Your task to perform on an android device: open app "Google Play Music" (install if not already installed) Image 0: 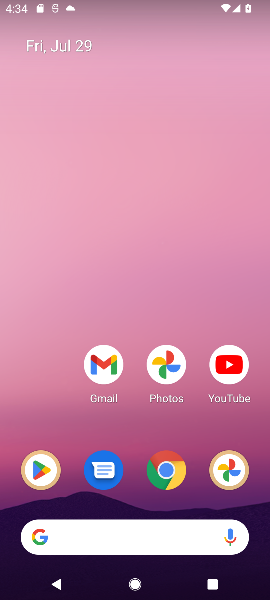
Step 0: click (43, 468)
Your task to perform on an android device: open app "Google Play Music" (install if not already installed) Image 1: 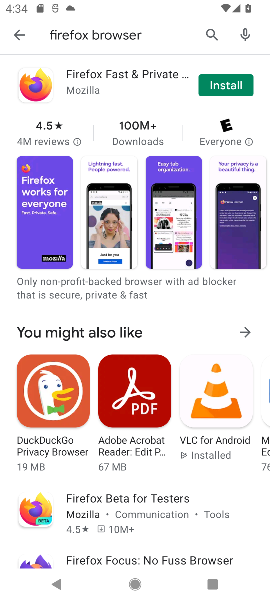
Step 1: click (204, 31)
Your task to perform on an android device: open app "Google Play Music" (install if not already installed) Image 2: 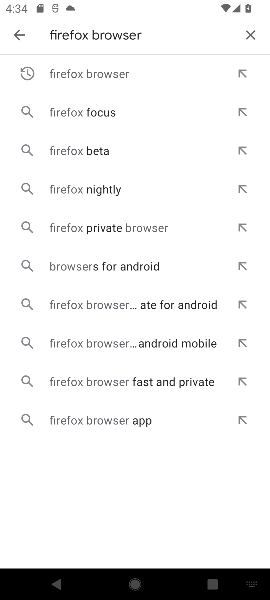
Step 2: click (255, 27)
Your task to perform on an android device: open app "Google Play Music" (install if not already installed) Image 3: 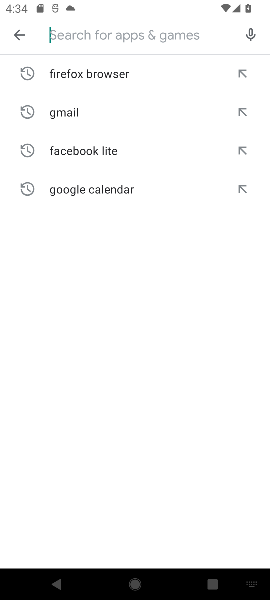
Step 3: type "Google Play Music"
Your task to perform on an android device: open app "Google Play Music" (install if not already installed) Image 4: 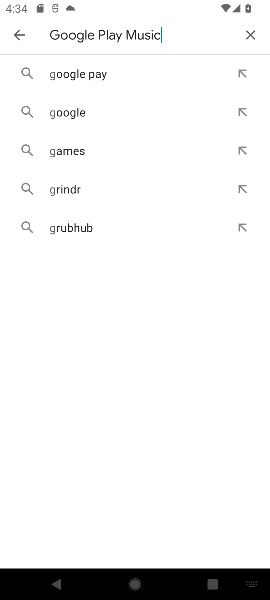
Step 4: type ""
Your task to perform on an android device: open app "Google Play Music" (install if not already installed) Image 5: 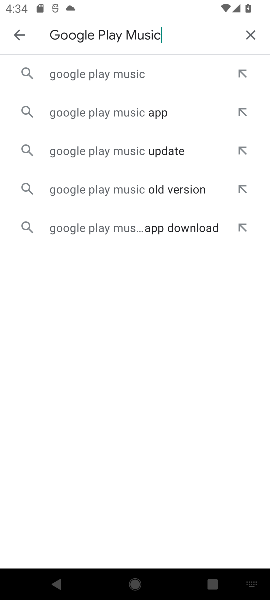
Step 5: type ""
Your task to perform on an android device: open app "Google Play Music" (install if not already installed) Image 6: 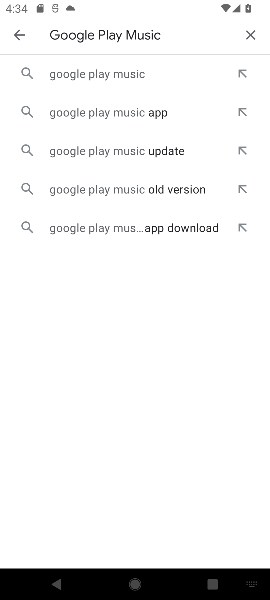
Step 6: click (189, 81)
Your task to perform on an android device: open app "Google Play Music" (install if not already installed) Image 7: 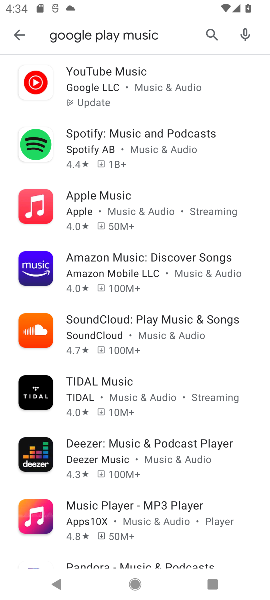
Step 7: click (130, 82)
Your task to perform on an android device: open app "Google Play Music" (install if not already installed) Image 8: 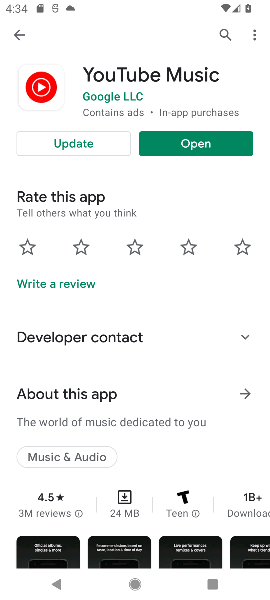
Step 8: click (157, 140)
Your task to perform on an android device: open app "Google Play Music" (install if not already installed) Image 9: 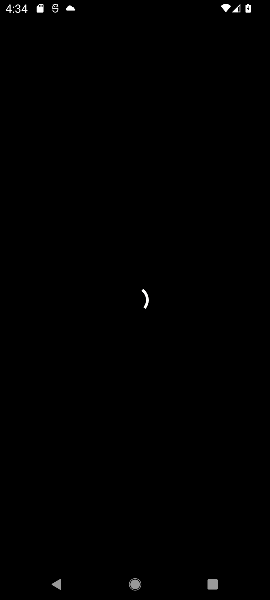
Step 9: task complete